Your task to perform on an android device: open a bookmark in the chrome app Image 0: 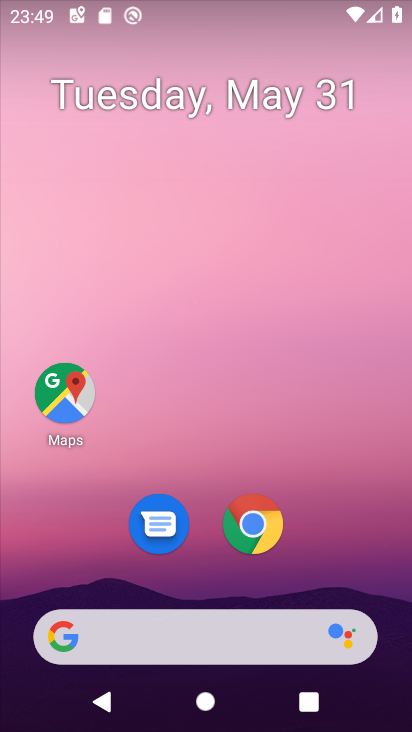
Step 0: click (245, 524)
Your task to perform on an android device: open a bookmark in the chrome app Image 1: 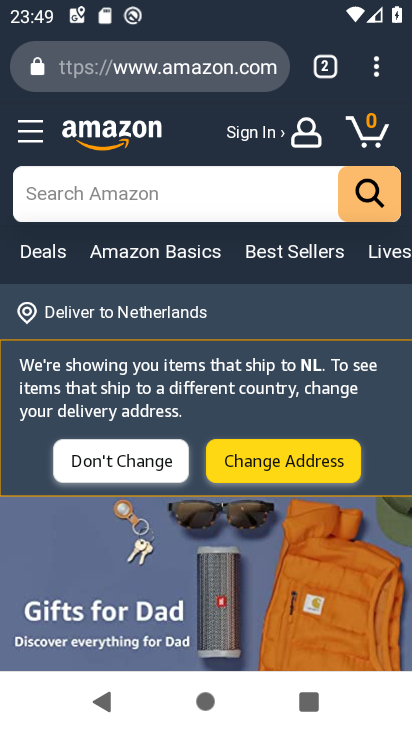
Step 1: click (369, 73)
Your task to perform on an android device: open a bookmark in the chrome app Image 2: 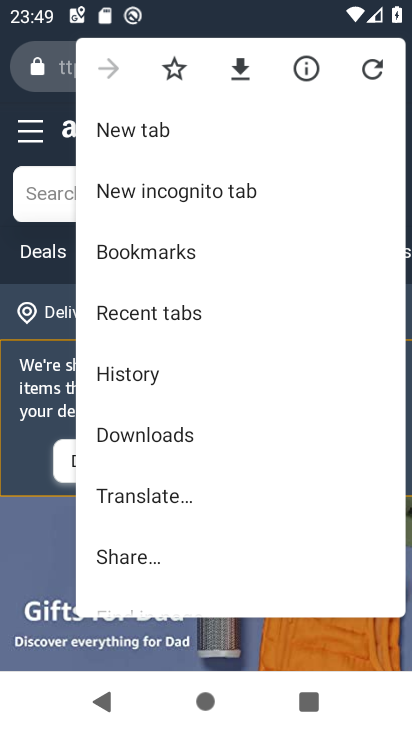
Step 2: click (201, 243)
Your task to perform on an android device: open a bookmark in the chrome app Image 3: 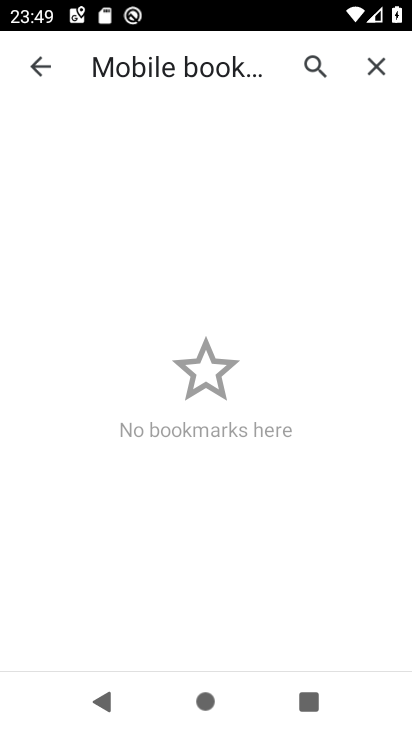
Step 3: task complete